Your task to perform on an android device: Open Chrome and go to the settings page Image 0: 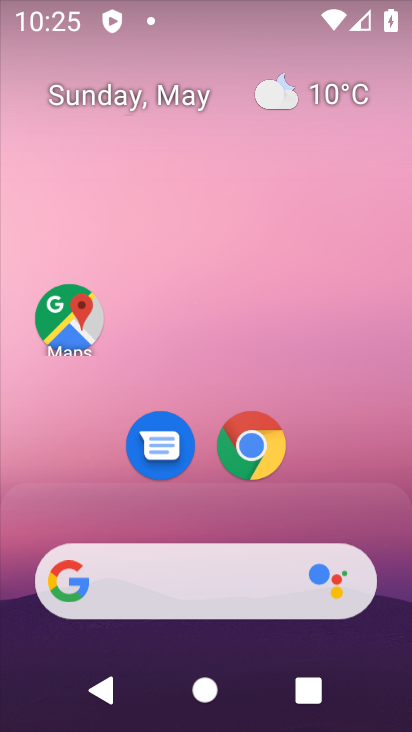
Step 0: click (241, 434)
Your task to perform on an android device: Open Chrome and go to the settings page Image 1: 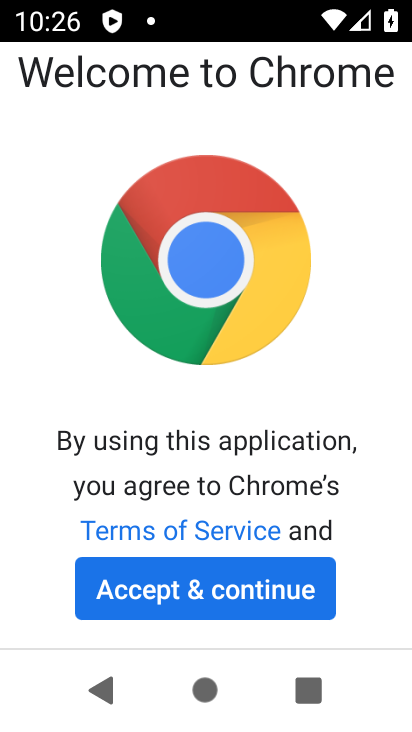
Step 1: click (242, 602)
Your task to perform on an android device: Open Chrome and go to the settings page Image 2: 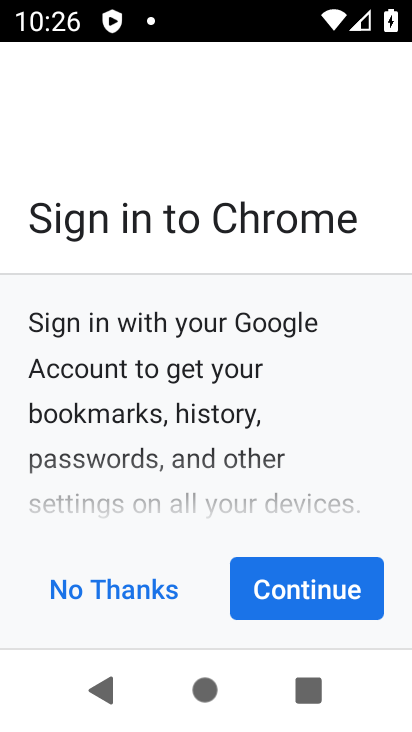
Step 2: click (242, 602)
Your task to perform on an android device: Open Chrome and go to the settings page Image 3: 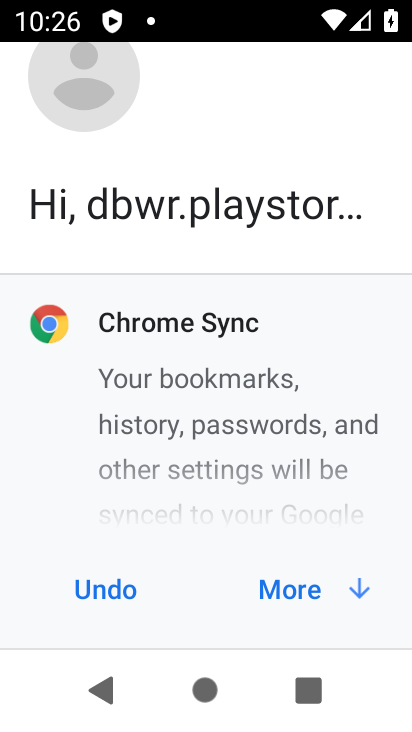
Step 3: click (270, 588)
Your task to perform on an android device: Open Chrome and go to the settings page Image 4: 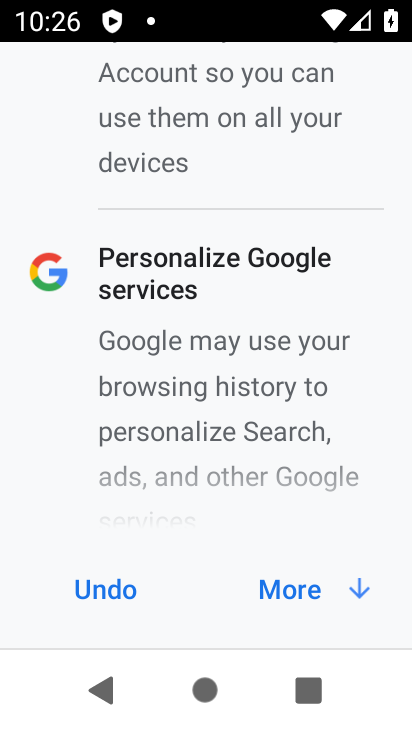
Step 4: click (345, 593)
Your task to perform on an android device: Open Chrome and go to the settings page Image 5: 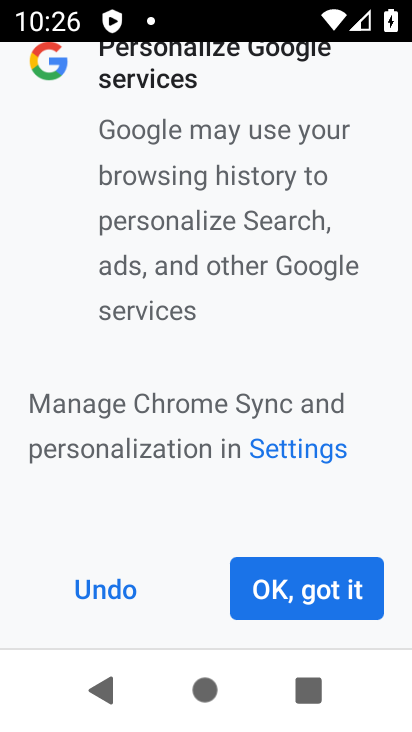
Step 5: click (344, 593)
Your task to perform on an android device: Open Chrome and go to the settings page Image 6: 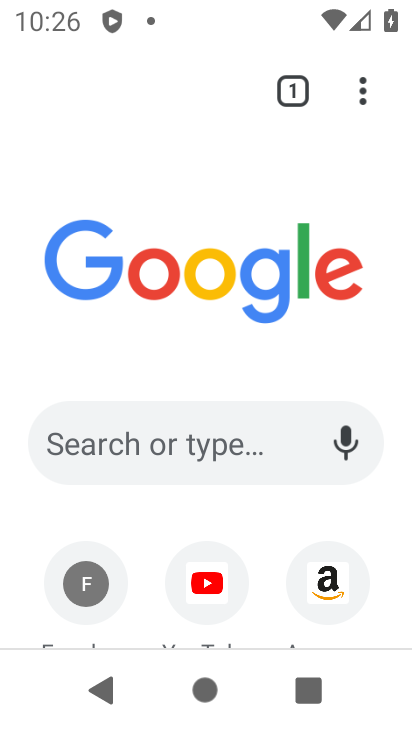
Step 6: click (360, 100)
Your task to perform on an android device: Open Chrome and go to the settings page Image 7: 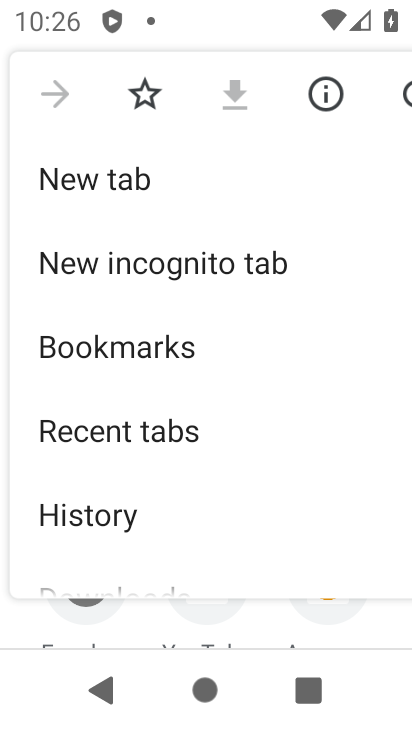
Step 7: drag from (140, 523) to (175, 59)
Your task to perform on an android device: Open Chrome and go to the settings page Image 8: 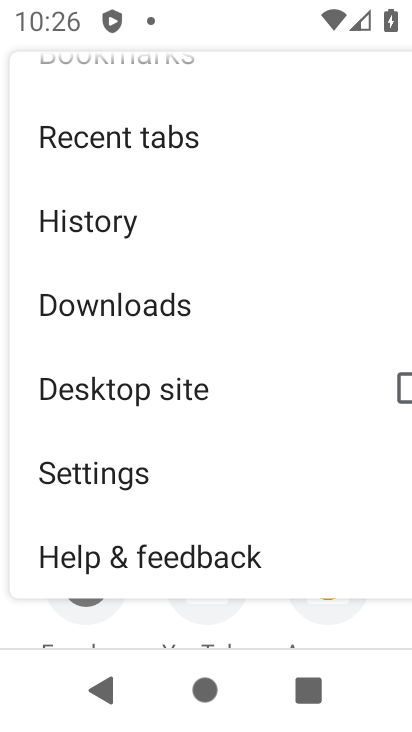
Step 8: click (136, 483)
Your task to perform on an android device: Open Chrome and go to the settings page Image 9: 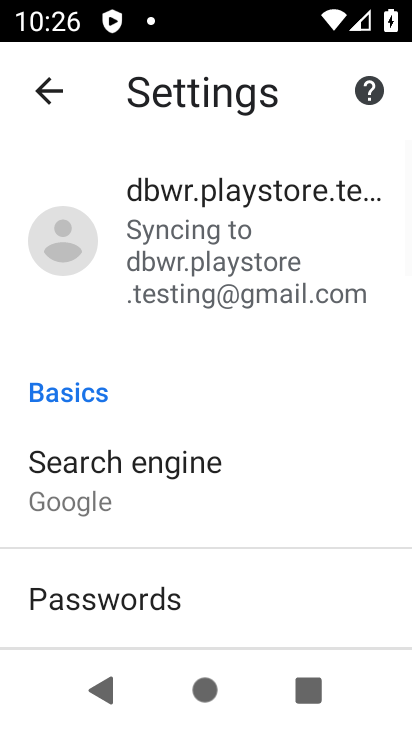
Step 9: task complete